Your task to perform on an android device: Open wifi settings Image 0: 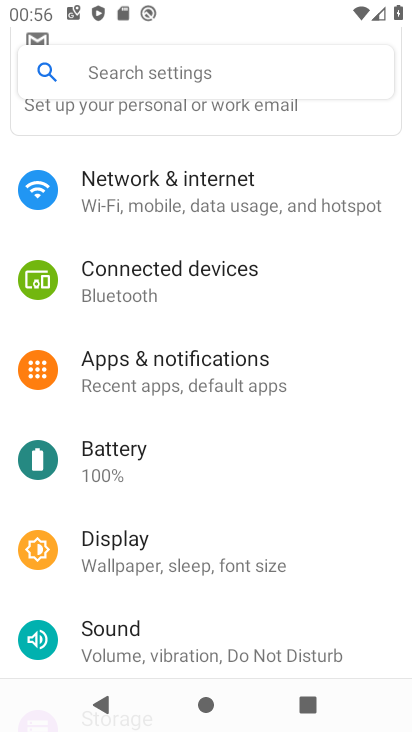
Step 0: click (275, 202)
Your task to perform on an android device: Open wifi settings Image 1: 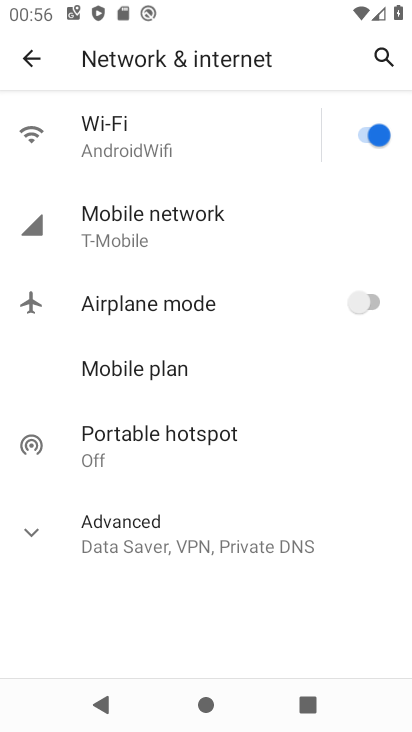
Step 1: click (162, 131)
Your task to perform on an android device: Open wifi settings Image 2: 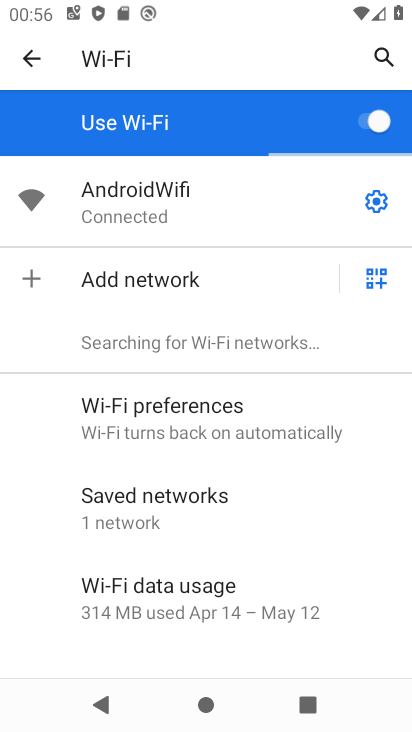
Step 2: task complete